Your task to perform on an android device: Open Chrome and go to settings Image 0: 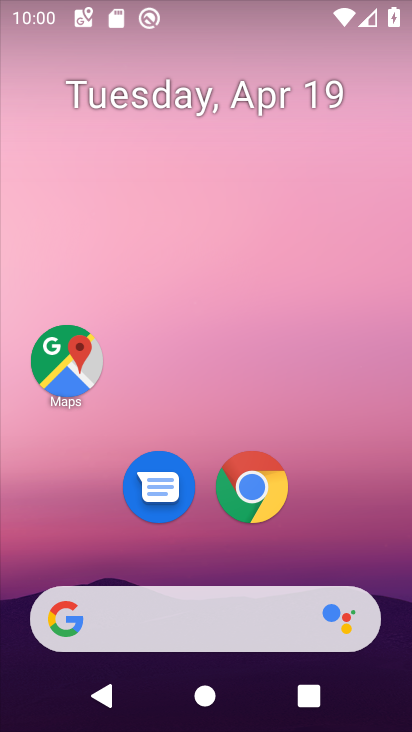
Step 0: drag from (383, 505) to (352, 35)
Your task to perform on an android device: Open Chrome and go to settings Image 1: 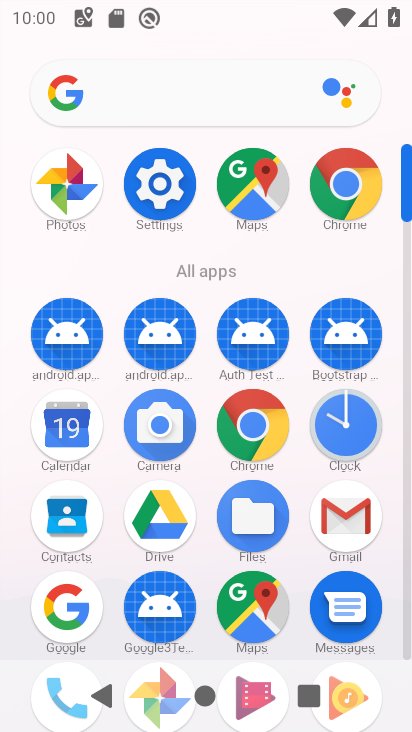
Step 1: drag from (5, 609) to (11, 283)
Your task to perform on an android device: Open Chrome and go to settings Image 2: 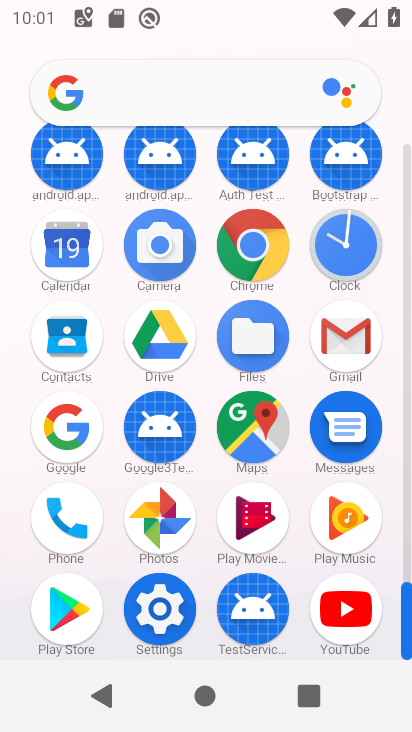
Step 2: drag from (14, 254) to (12, 413)
Your task to perform on an android device: Open Chrome and go to settings Image 3: 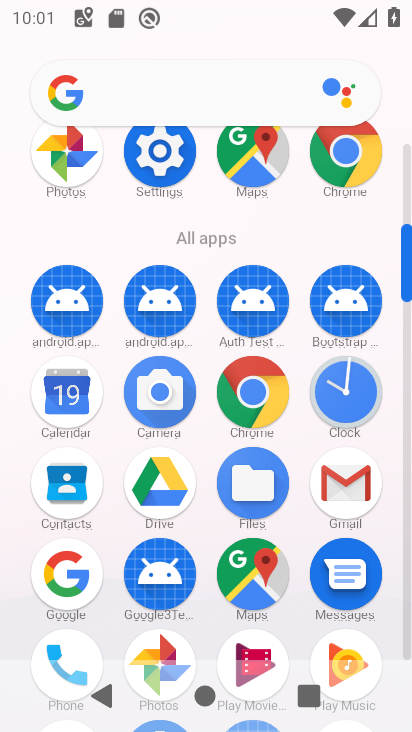
Step 3: drag from (8, 354) to (0, 513)
Your task to perform on an android device: Open Chrome and go to settings Image 4: 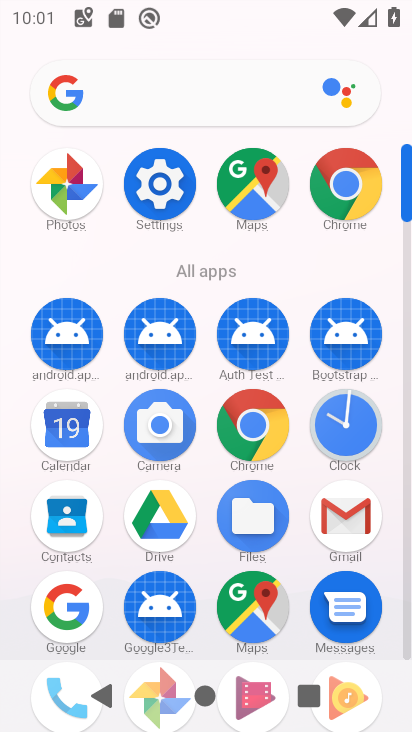
Step 4: click (250, 424)
Your task to perform on an android device: Open Chrome and go to settings Image 5: 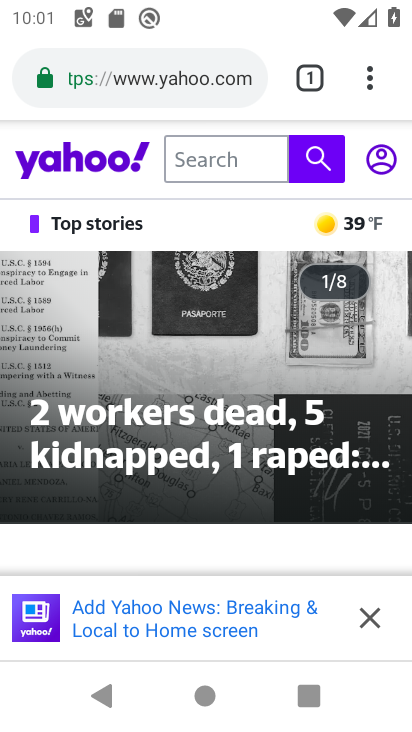
Step 5: task complete